Your task to perform on an android device: Go to display settings Image 0: 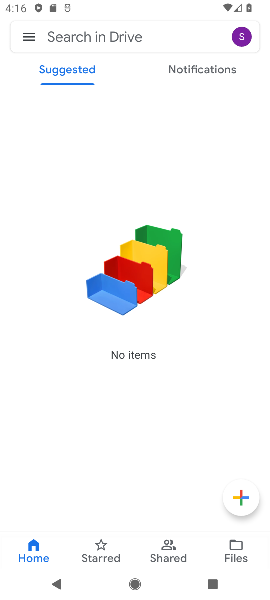
Step 0: press home button
Your task to perform on an android device: Go to display settings Image 1: 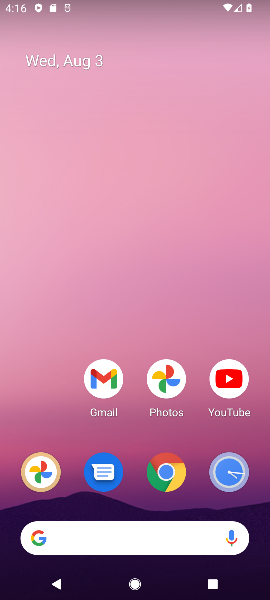
Step 1: drag from (126, 430) to (218, 75)
Your task to perform on an android device: Go to display settings Image 2: 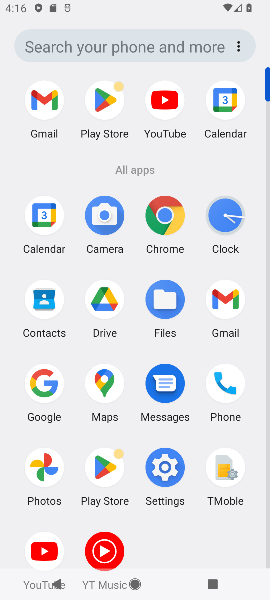
Step 2: click (177, 471)
Your task to perform on an android device: Go to display settings Image 3: 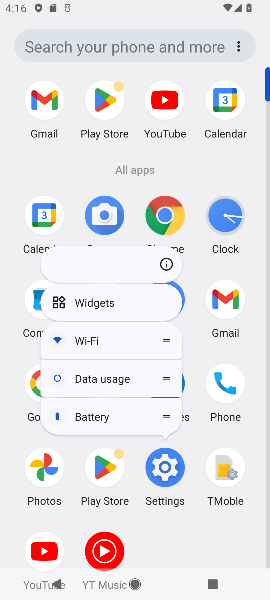
Step 3: click (176, 472)
Your task to perform on an android device: Go to display settings Image 4: 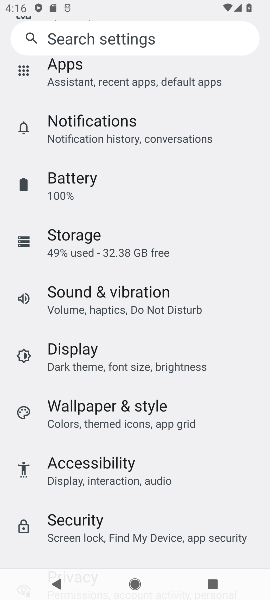
Step 4: drag from (159, 165) to (133, 471)
Your task to perform on an android device: Go to display settings Image 5: 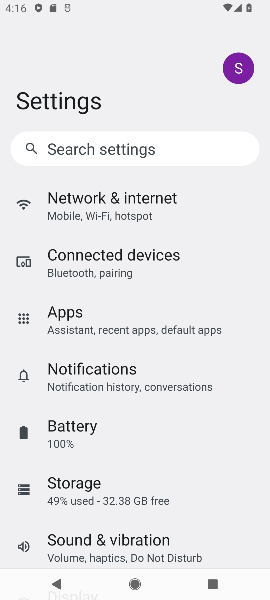
Step 5: drag from (155, 447) to (201, 166)
Your task to perform on an android device: Go to display settings Image 6: 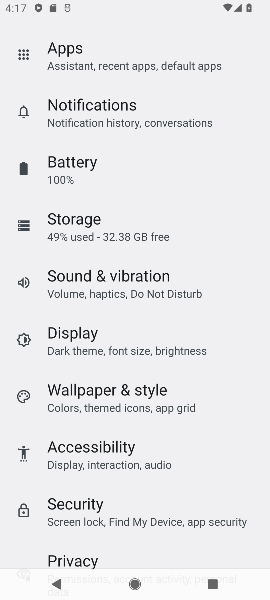
Step 6: click (96, 337)
Your task to perform on an android device: Go to display settings Image 7: 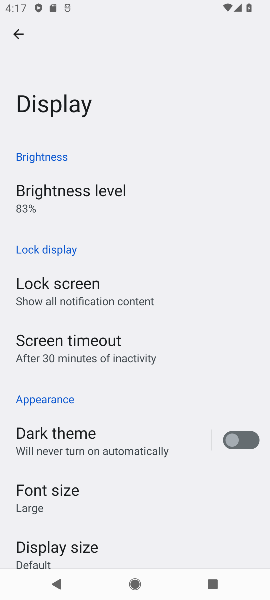
Step 7: task complete